Your task to perform on an android device: Open Google Maps and go to "Timeline" Image 0: 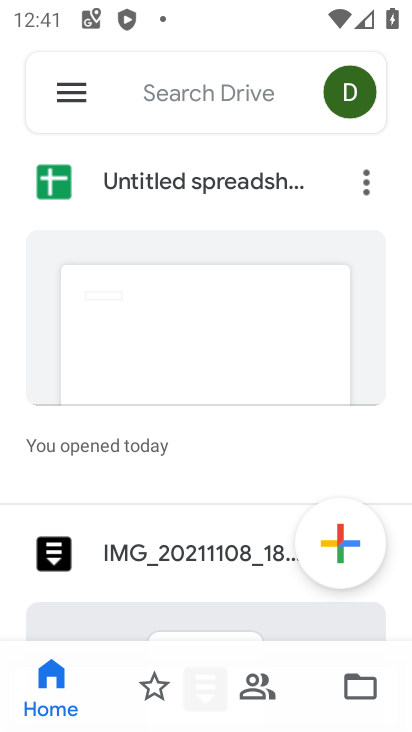
Step 0: press home button
Your task to perform on an android device: Open Google Maps and go to "Timeline" Image 1: 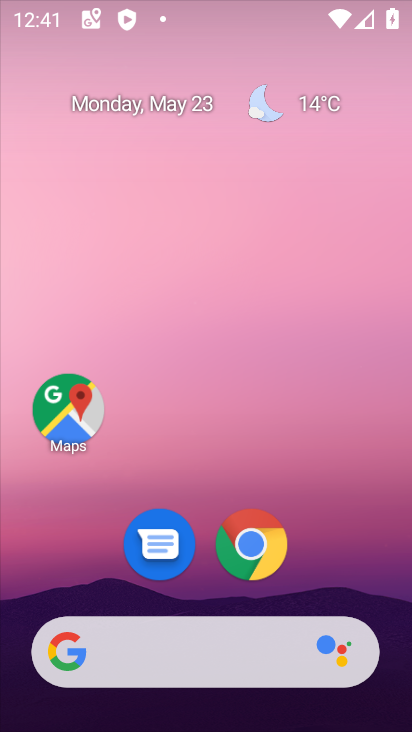
Step 1: drag from (319, 530) to (195, 108)
Your task to perform on an android device: Open Google Maps and go to "Timeline" Image 2: 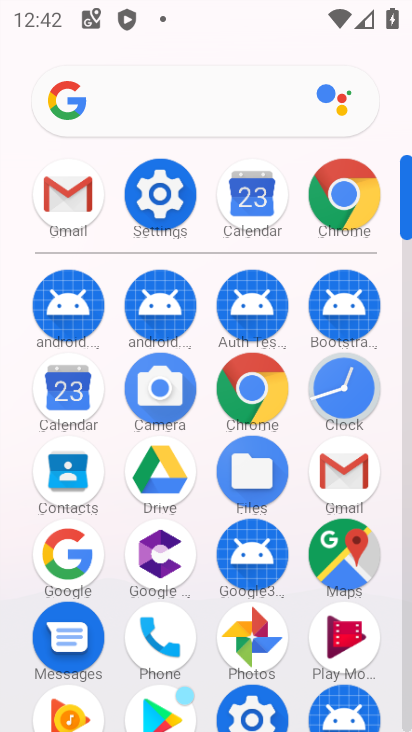
Step 2: click (261, 624)
Your task to perform on an android device: Open Google Maps and go to "Timeline" Image 3: 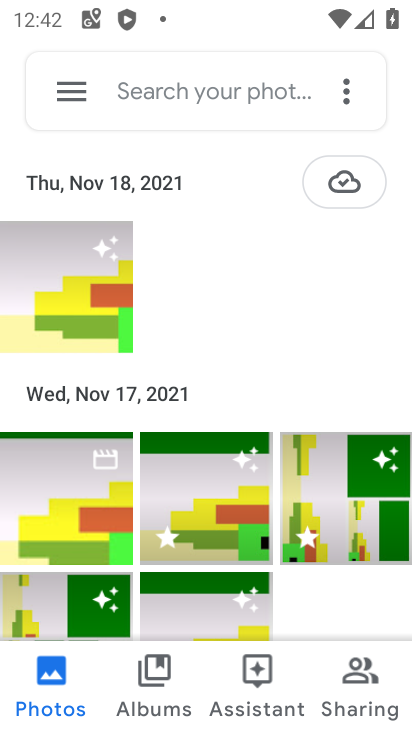
Step 3: press home button
Your task to perform on an android device: Open Google Maps and go to "Timeline" Image 4: 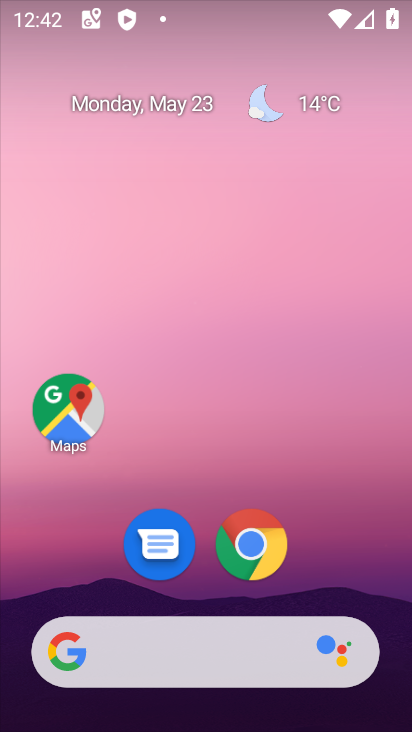
Step 4: click (93, 424)
Your task to perform on an android device: Open Google Maps and go to "Timeline" Image 5: 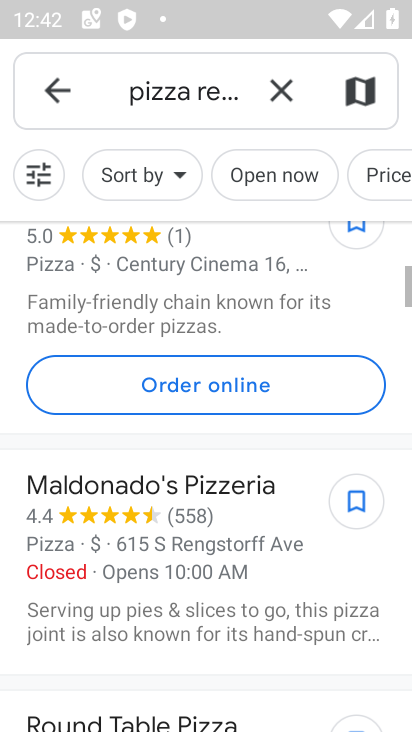
Step 5: click (67, 89)
Your task to perform on an android device: Open Google Maps and go to "Timeline" Image 6: 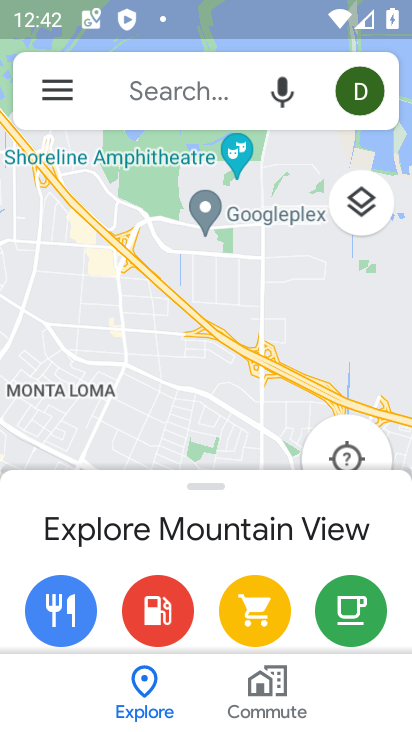
Step 6: click (64, 88)
Your task to perform on an android device: Open Google Maps and go to "Timeline" Image 7: 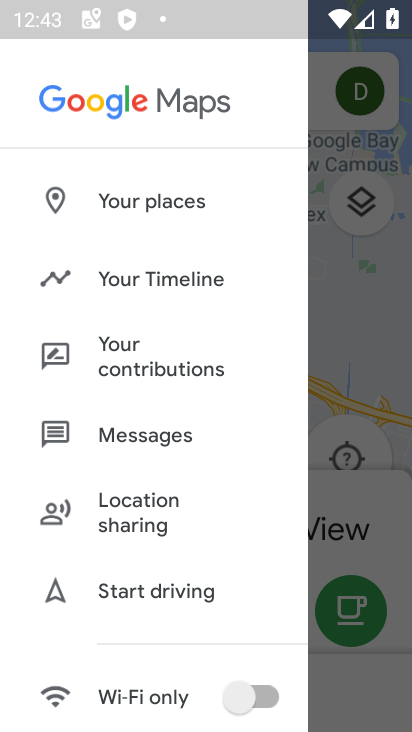
Step 7: click (135, 293)
Your task to perform on an android device: Open Google Maps and go to "Timeline" Image 8: 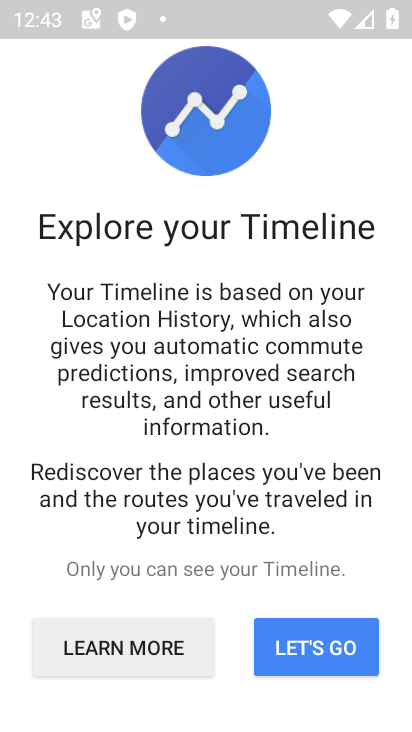
Step 8: click (312, 663)
Your task to perform on an android device: Open Google Maps and go to "Timeline" Image 9: 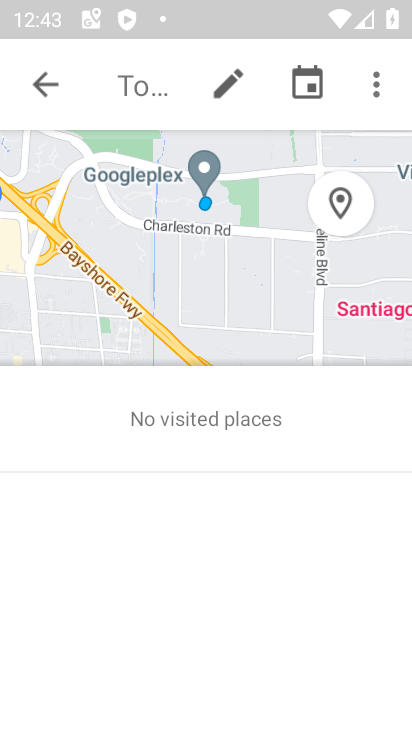
Step 9: task complete